Your task to perform on an android device: Open the stopwatch Image 0: 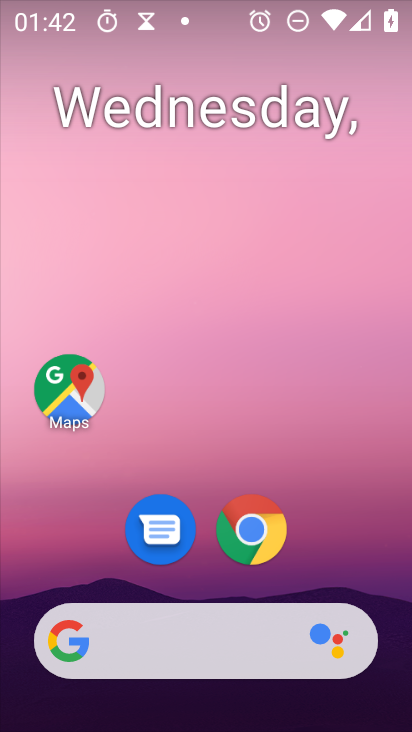
Step 0: drag from (248, 607) to (256, 12)
Your task to perform on an android device: Open the stopwatch Image 1: 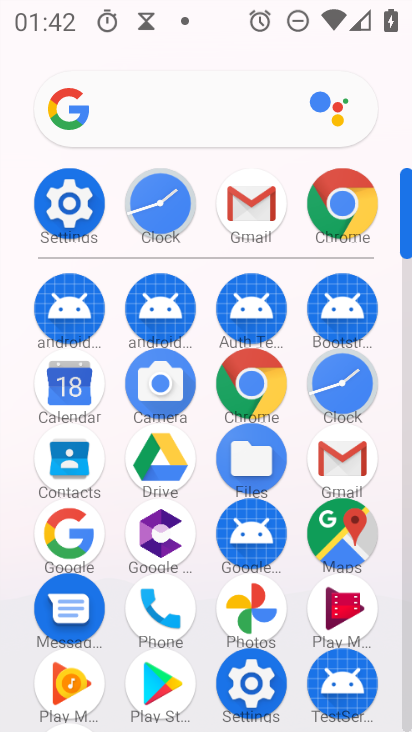
Step 1: click (348, 393)
Your task to perform on an android device: Open the stopwatch Image 2: 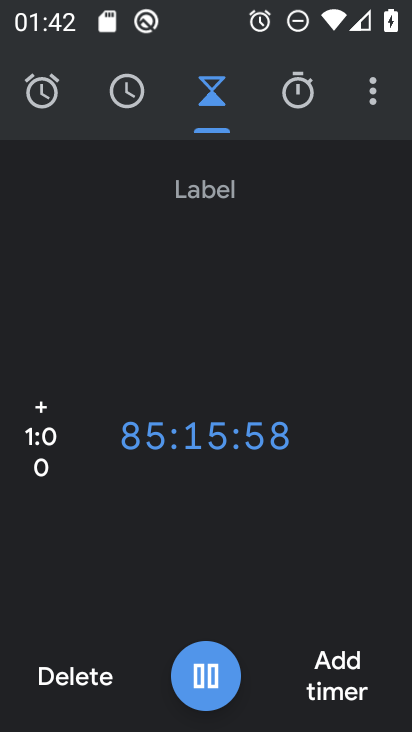
Step 2: click (296, 113)
Your task to perform on an android device: Open the stopwatch Image 3: 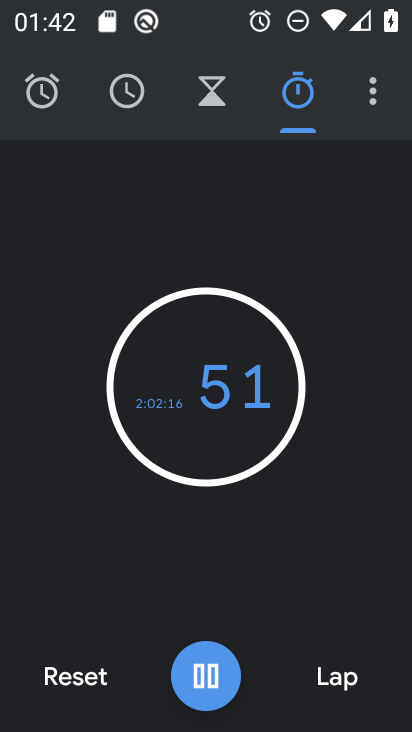
Step 3: task complete